Your task to perform on an android device: turn off airplane mode Image 0: 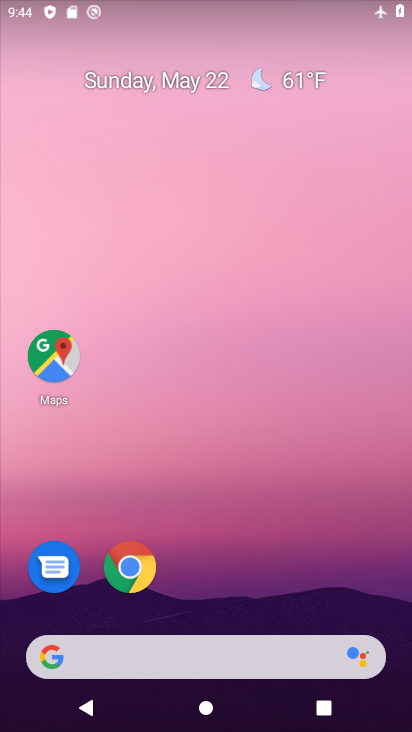
Step 0: drag from (236, 625) to (183, 15)
Your task to perform on an android device: turn off airplane mode Image 1: 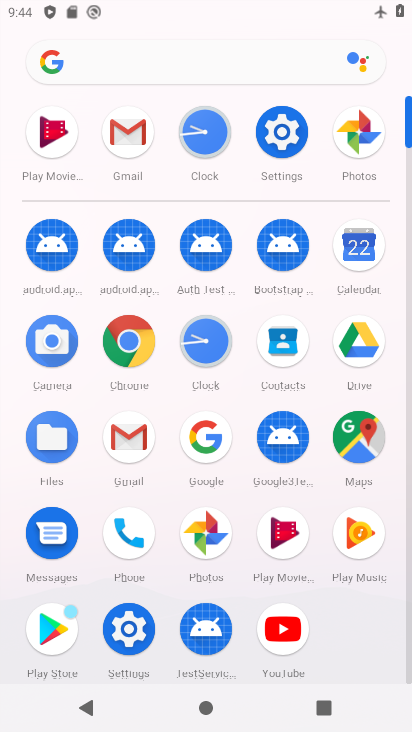
Step 1: click (289, 113)
Your task to perform on an android device: turn off airplane mode Image 2: 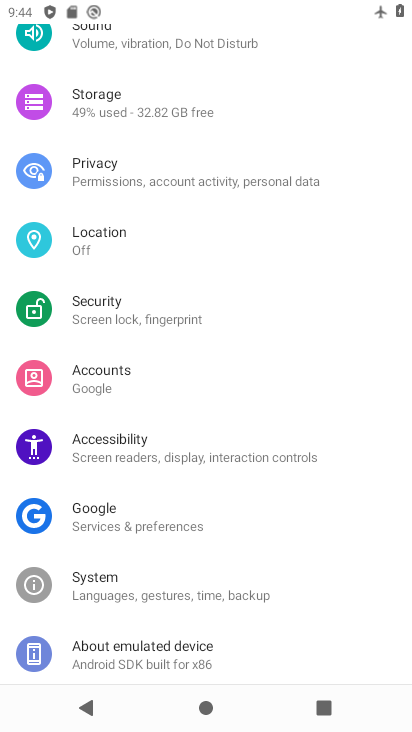
Step 2: drag from (289, 115) to (310, 629)
Your task to perform on an android device: turn off airplane mode Image 3: 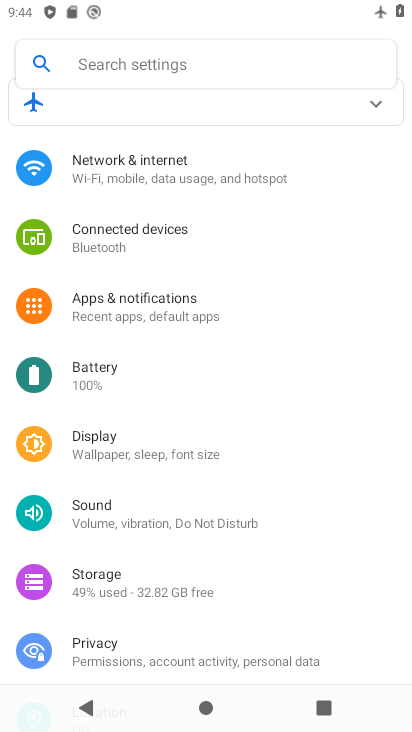
Step 3: click (110, 154)
Your task to perform on an android device: turn off airplane mode Image 4: 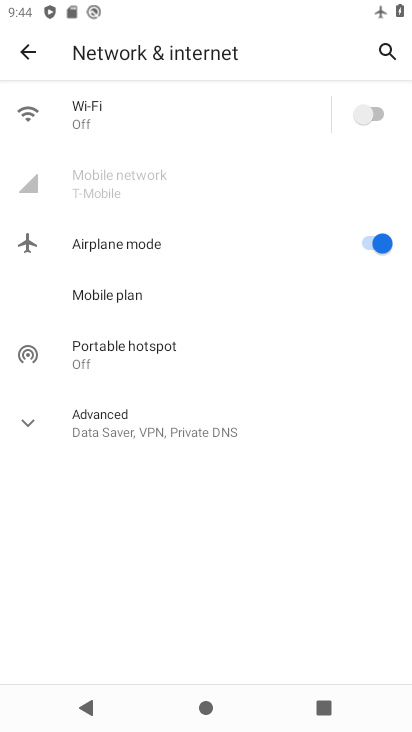
Step 4: click (371, 245)
Your task to perform on an android device: turn off airplane mode Image 5: 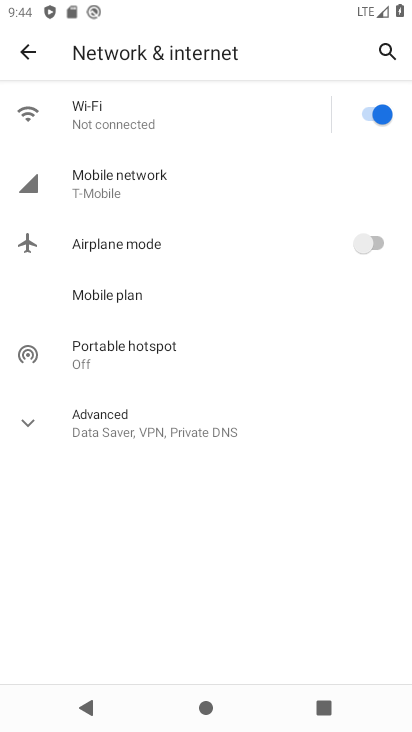
Step 5: task complete